Your task to perform on an android device: Set the phone to "Do not disturb". Image 0: 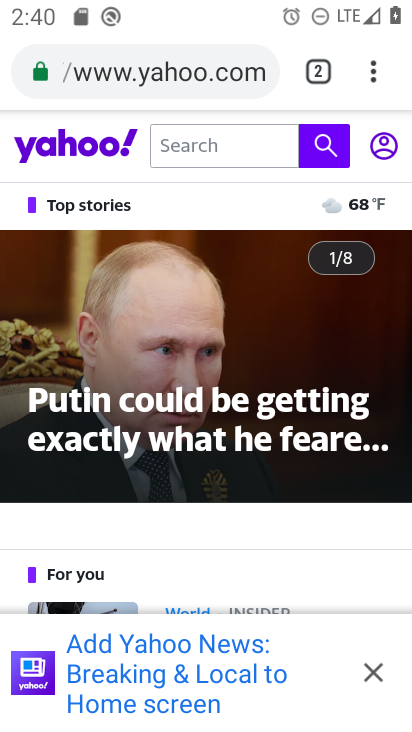
Step 0: press home button
Your task to perform on an android device: Set the phone to "Do not disturb". Image 1: 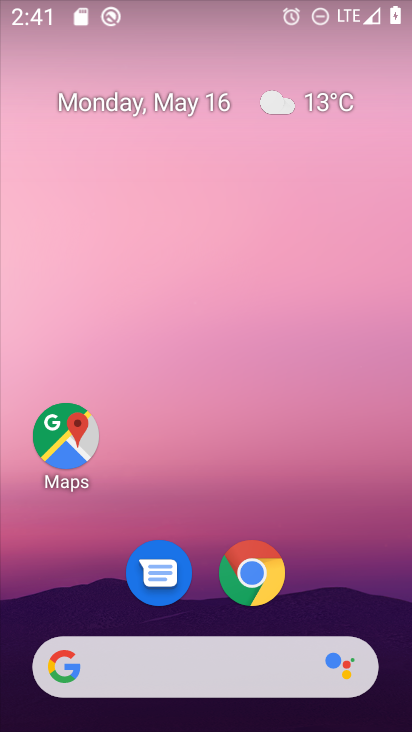
Step 1: drag from (186, 636) to (183, 290)
Your task to perform on an android device: Set the phone to "Do not disturb". Image 2: 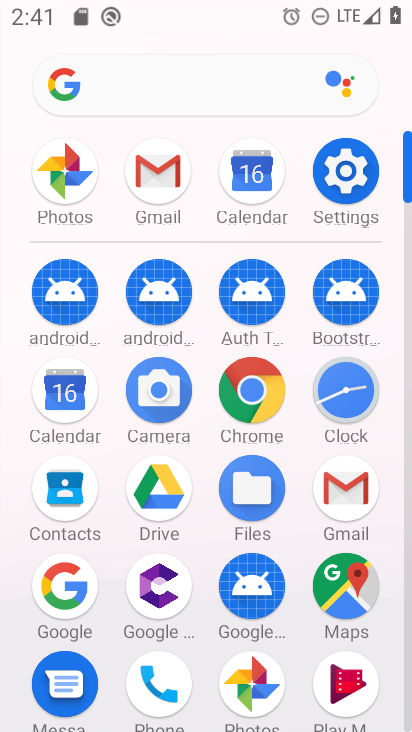
Step 2: click (357, 189)
Your task to perform on an android device: Set the phone to "Do not disturb". Image 3: 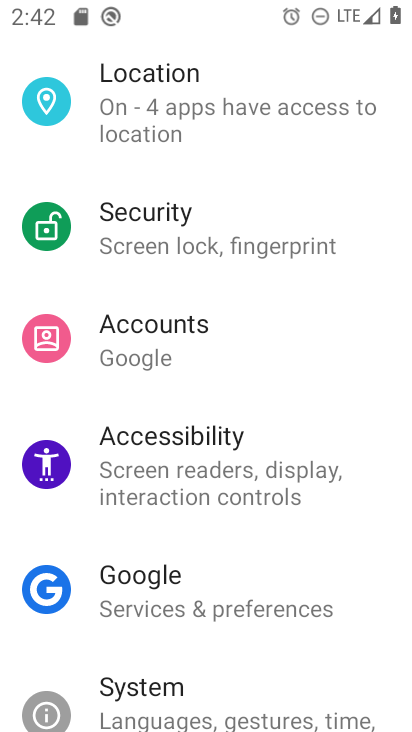
Step 3: drag from (143, 182) to (202, 541)
Your task to perform on an android device: Set the phone to "Do not disturb". Image 4: 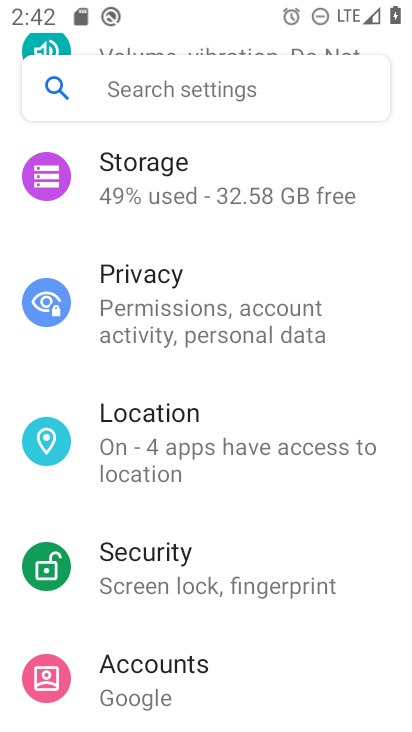
Step 4: drag from (147, 221) to (188, 556)
Your task to perform on an android device: Set the phone to "Do not disturb". Image 5: 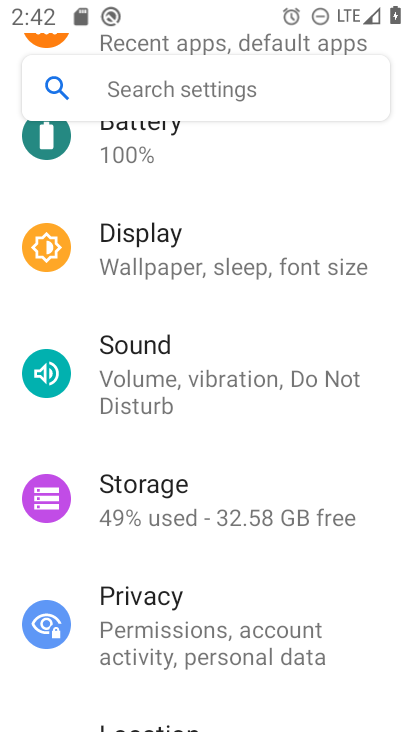
Step 5: click (150, 373)
Your task to perform on an android device: Set the phone to "Do not disturb". Image 6: 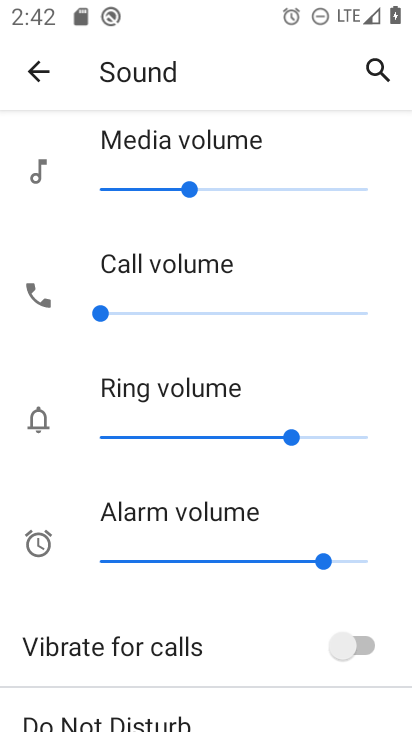
Step 6: drag from (191, 654) to (141, 183)
Your task to perform on an android device: Set the phone to "Do not disturb". Image 7: 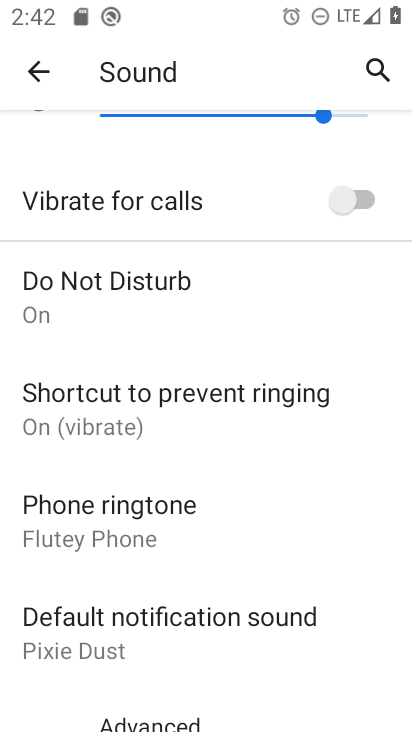
Step 7: click (124, 288)
Your task to perform on an android device: Set the phone to "Do not disturb". Image 8: 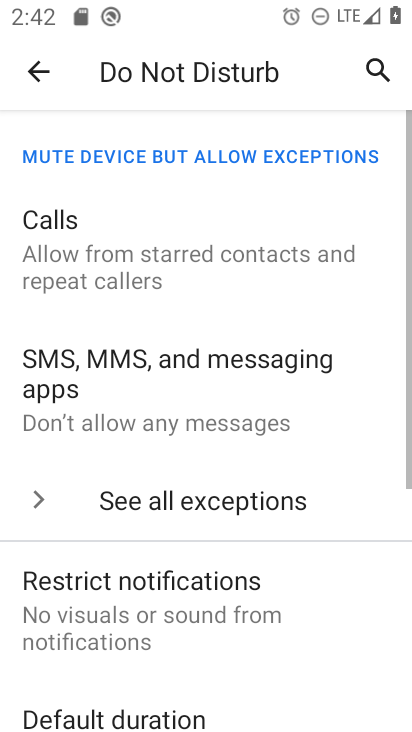
Step 8: task complete